Your task to perform on an android device: Find coffee shops on Maps Image 0: 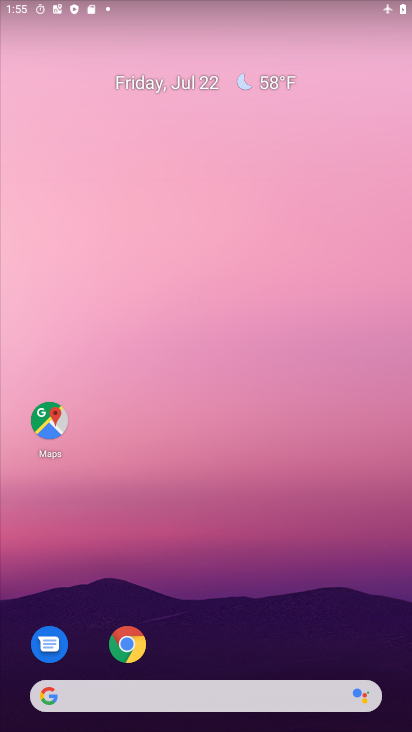
Step 0: drag from (200, 626) to (222, 29)
Your task to perform on an android device: Find coffee shops on Maps Image 1: 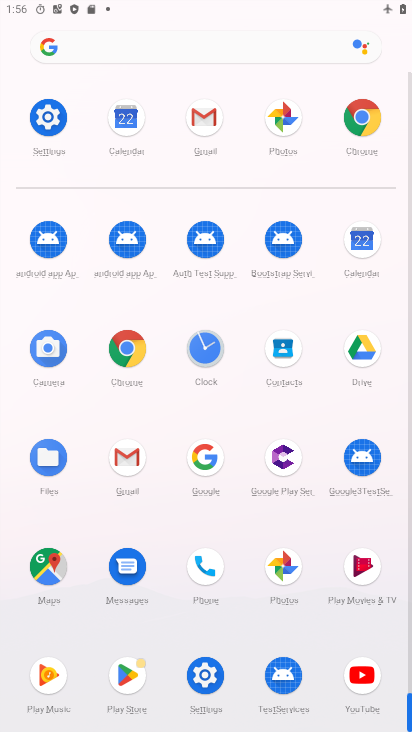
Step 1: click (48, 556)
Your task to perform on an android device: Find coffee shops on Maps Image 2: 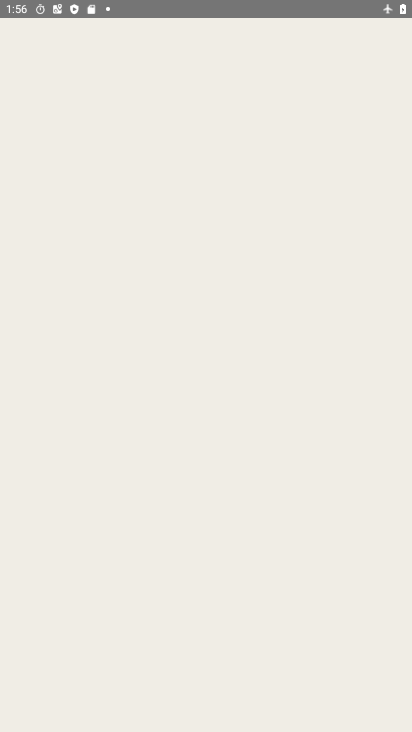
Step 2: drag from (247, 607) to (213, 223)
Your task to perform on an android device: Find coffee shops on Maps Image 3: 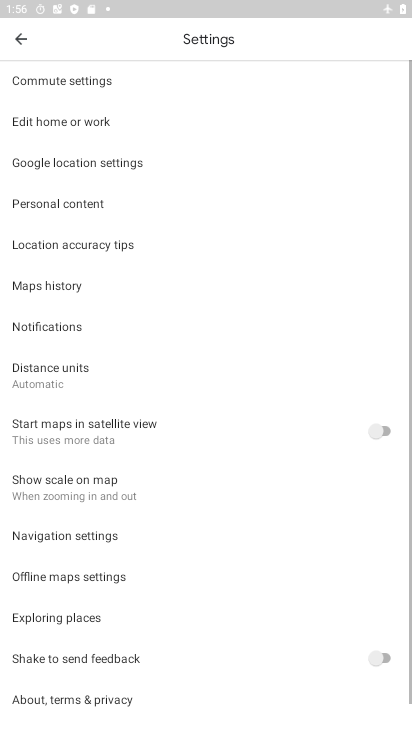
Step 3: drag from (202, 188) to (192, 731)
Your task to perform on an android device: Find coffee shops on Maps Image 4: 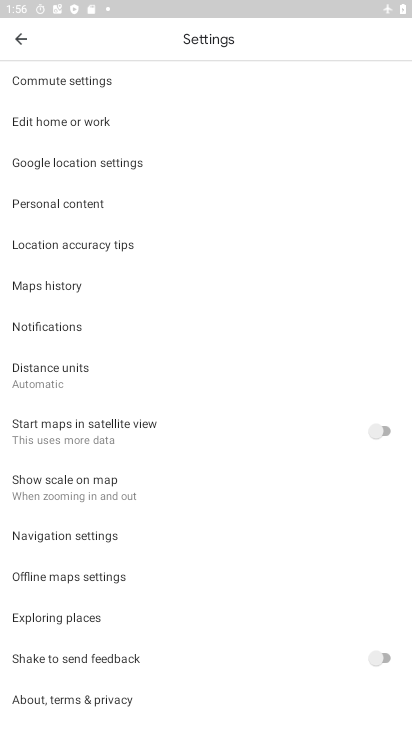
Step 4: click (27, 37)
Your task to perform on an android device: Find coffee shops on Maps Image 5: 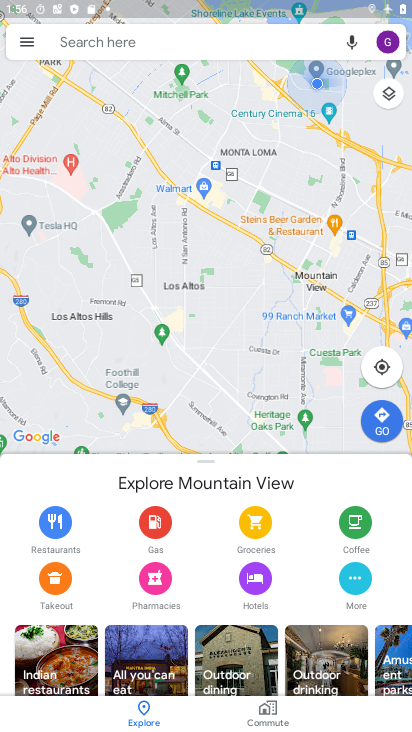
Step 5: click (121, 41)
Your task to perform on an android device: Find coffee shops on Maps Image 6: 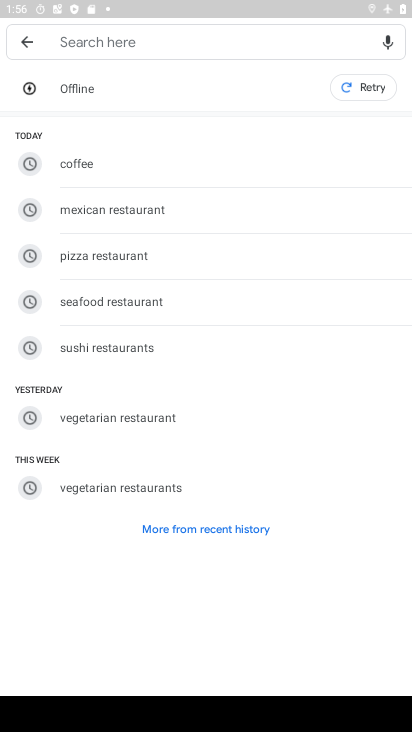
Step 6: click (66, 163)
Your task to perform on an android device: Find coffee shops on Maps Image 7: 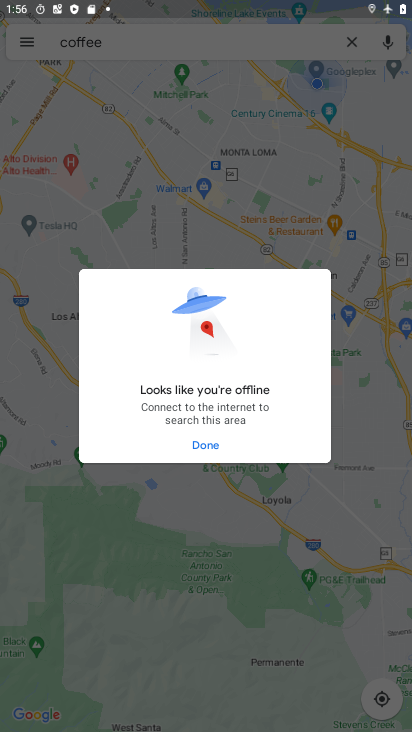
Step 7: click (201, 455)
Your task to perform on an android device: Find coffee shops on Maps Image 8: 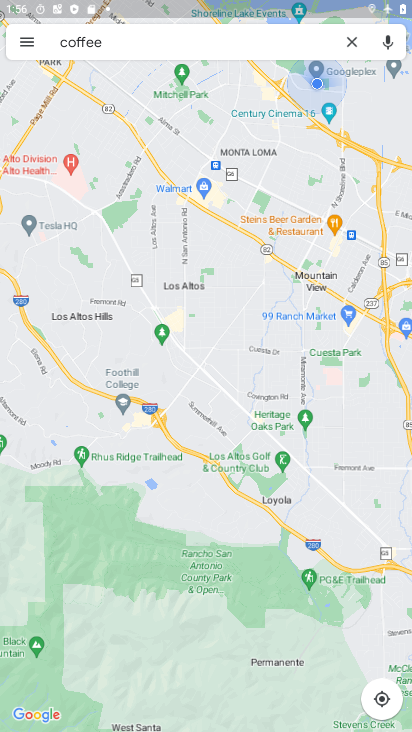
Step 8: drag from (242, 325) to (314, 506)
Your task to perform on an android device: Find coffee shops on Maps Image 9: 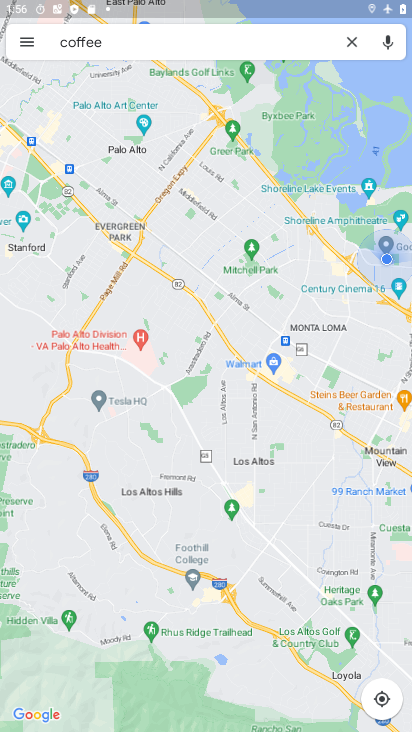
Step 9: drag from (260, 451) to (87, 342)
Your task to perform on an android device: Find coffee shops on Maps Image 10: 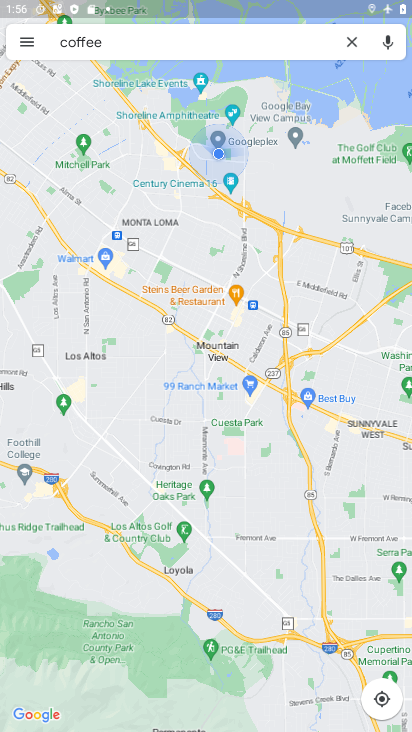
Step 10: drag from (129, 358) to (363, 485)
Your task to perform on an android device: Find coffee shops on Maps Image 11: 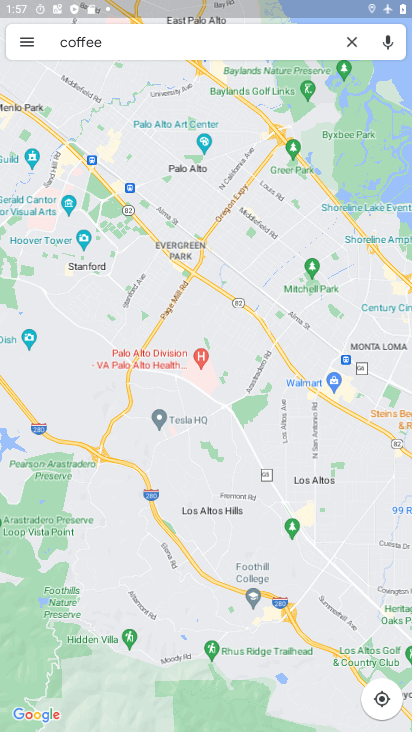
Step 11: click (195, 42)
Your task to perform on an android device: Find coffee shops on Maps Image 12: 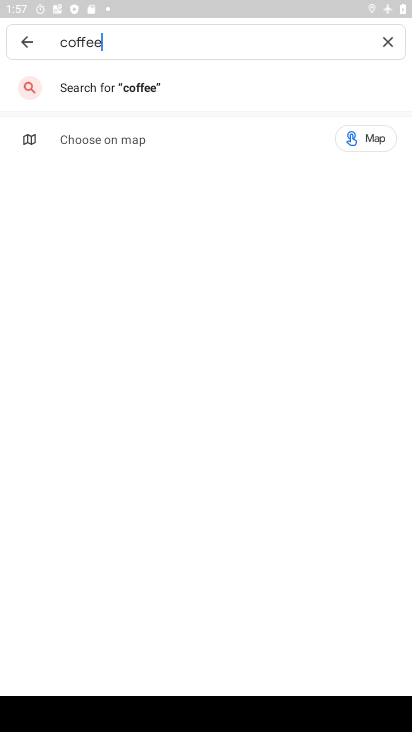
Step 12: click (134, 92)
Your task to perform on an android device: Find coffee shops on Maps Image 13: 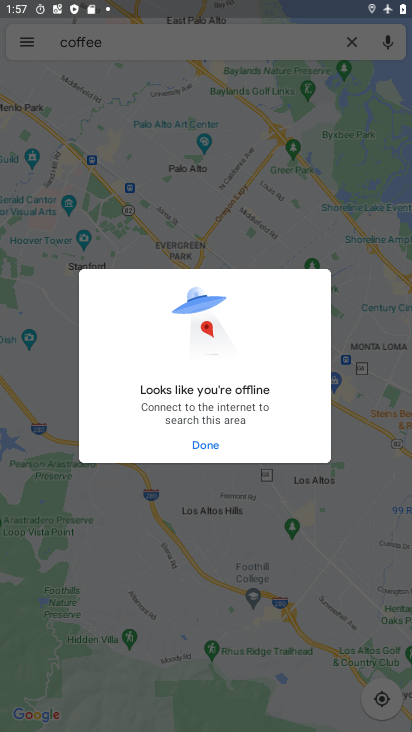
Step 13: task complete